Your task to perform on an android device: toggle data saver in the chrome app Image 0: 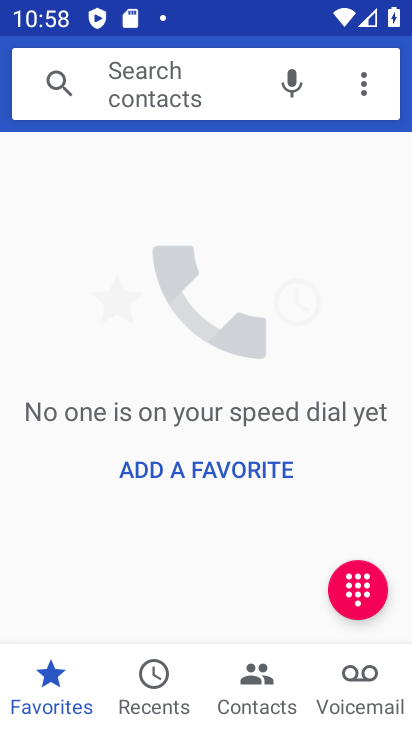
Step 0: press home button
Your task to perform on an android device: toggle data saver in the chrome app Image 1: 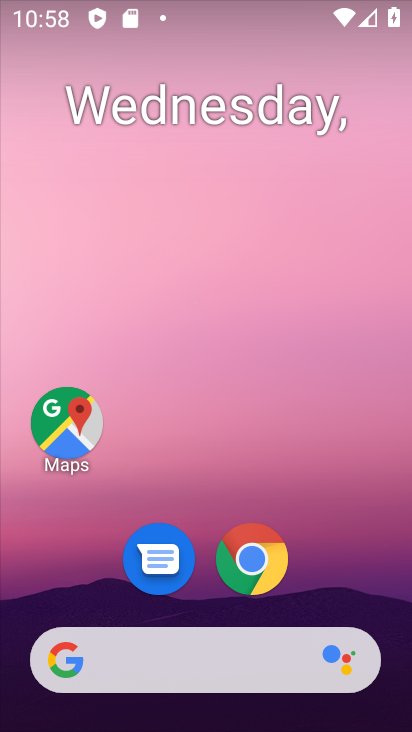
Step 1: click (280, 570)
Your task to perform on an android device: toggle data saver in the chrome app Image 2: 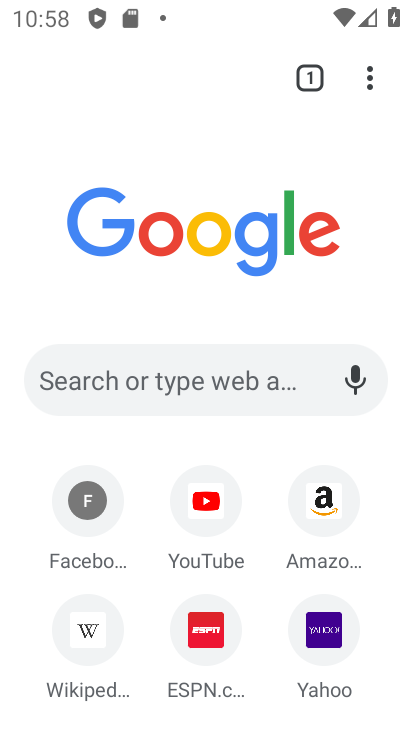
Step 2: click (376, 95)
Your task to perform on an android device: toggle data saver in the chrome app Image 3: 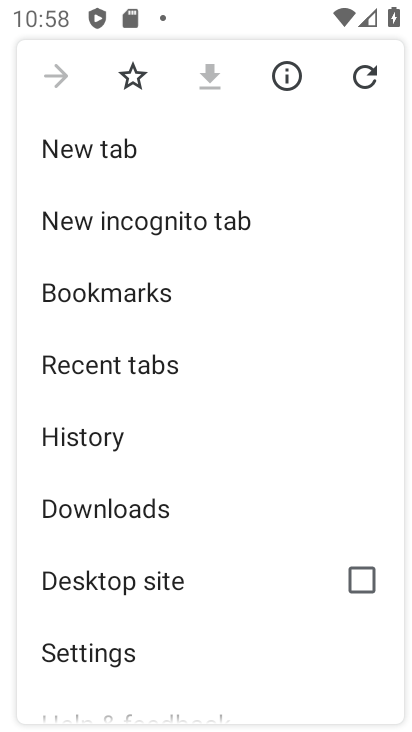
Step 3: click (190, 652)
Your task to perform on an android device: toggle data saver in the chrome app Image 4: 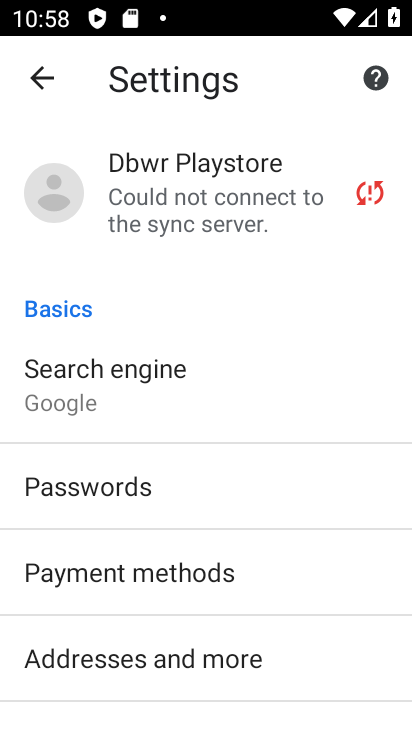
Step 4: drag from (208, 712) to (184, 371)
Your task to perform on an android device: toggle data saver in the chrome app Image 5: 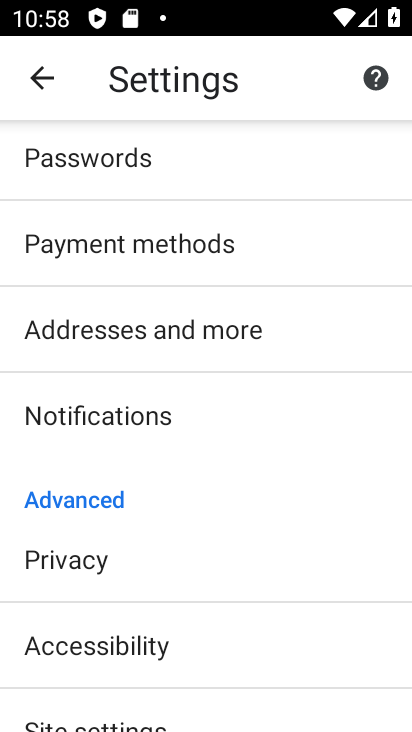
Step 5: drag from (159, 689) to (137, 263)
Your task to perform on an android device: toggle data saver in the chrome app Image 6: 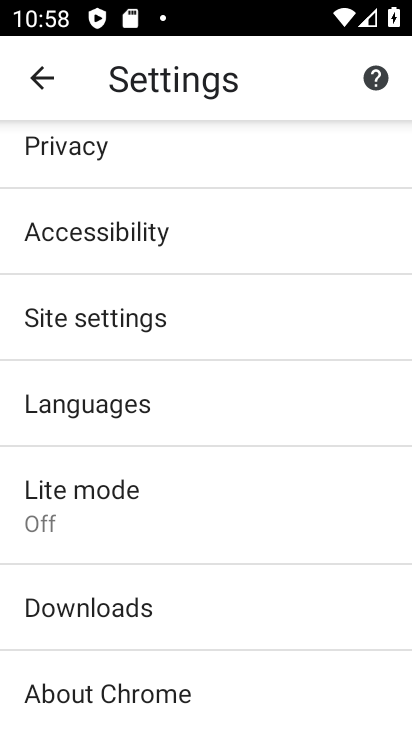
Step 6: click (136, 486)
Your task to perform on an android device: toggle data saver in the chrome app Image 7: 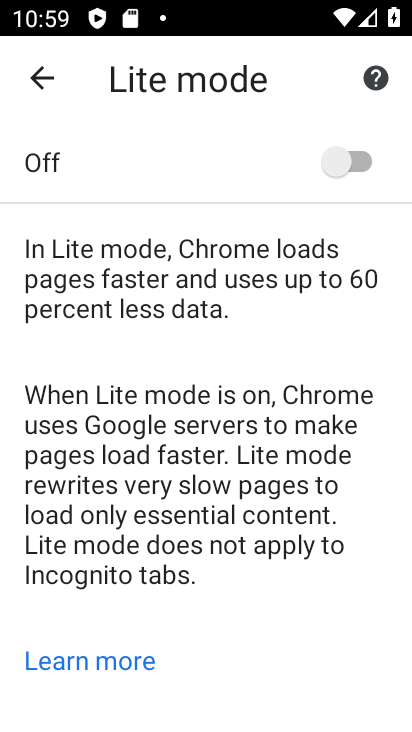
Step 7: click (352, 152)
Your task to perform on an android device: toggle data saver in the chrome app Image 8: 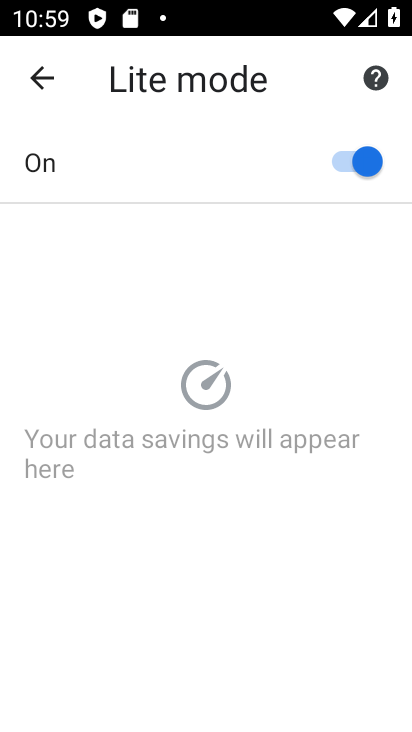
Step 8: task complete